Your task to perform on an android device: turn pop-ups off in chrome Image 0: 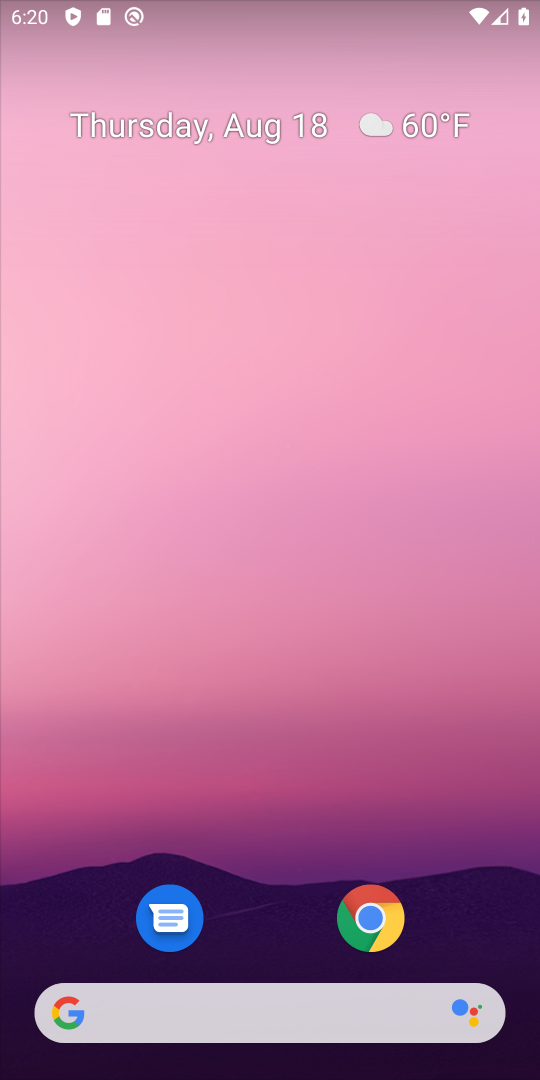
Step 0: press home button
Your task to perform on an android device: turn pop-ups off in chrome Image 1: 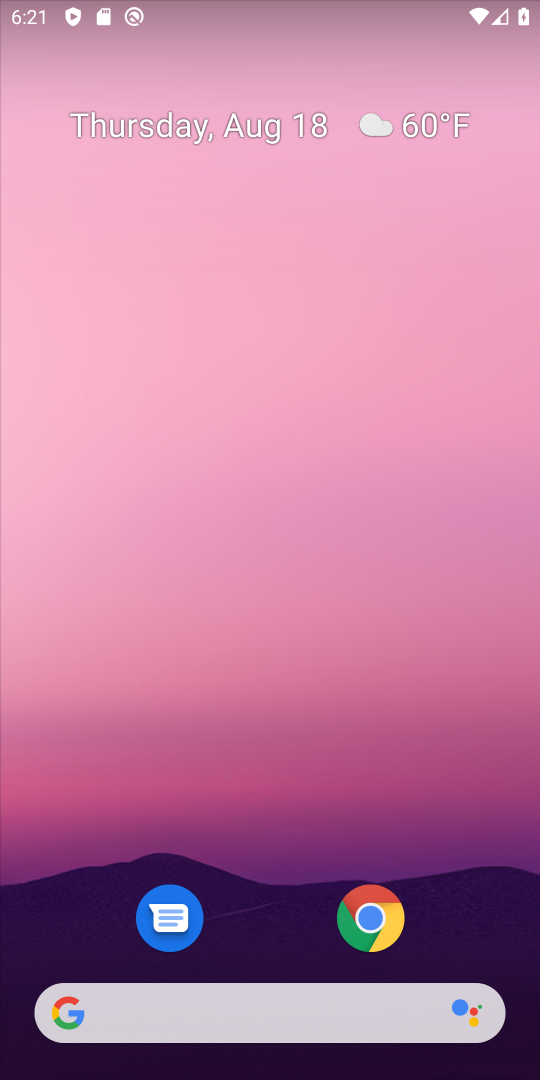
Step 1: click (374, 937)
Your task to perform on an android device: turn pop-ups off in chrome Image 2: 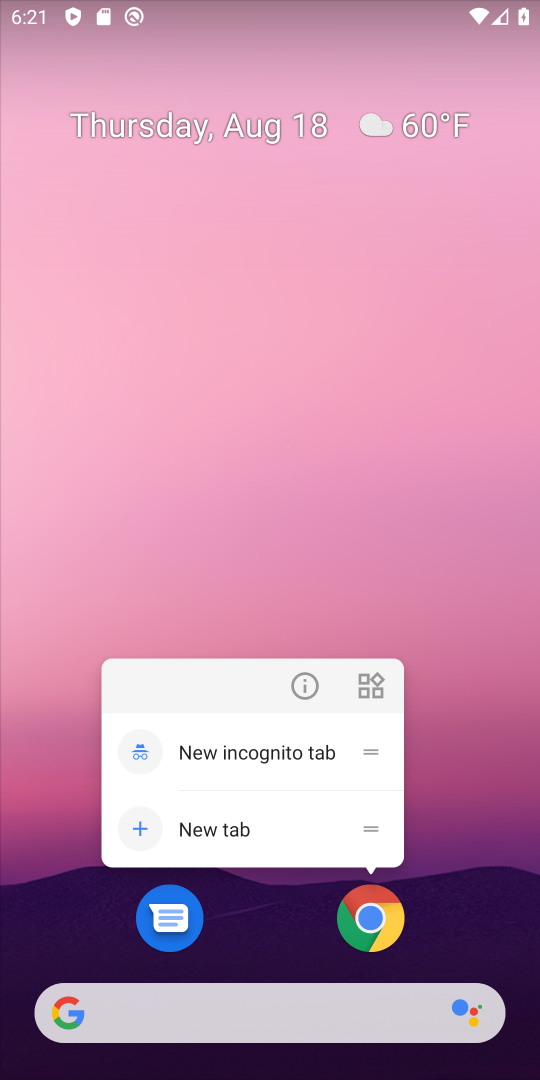
Step 2: click (384, 921)
Your task to perform on an android device: turn pop-ups off in chrome Image 3: 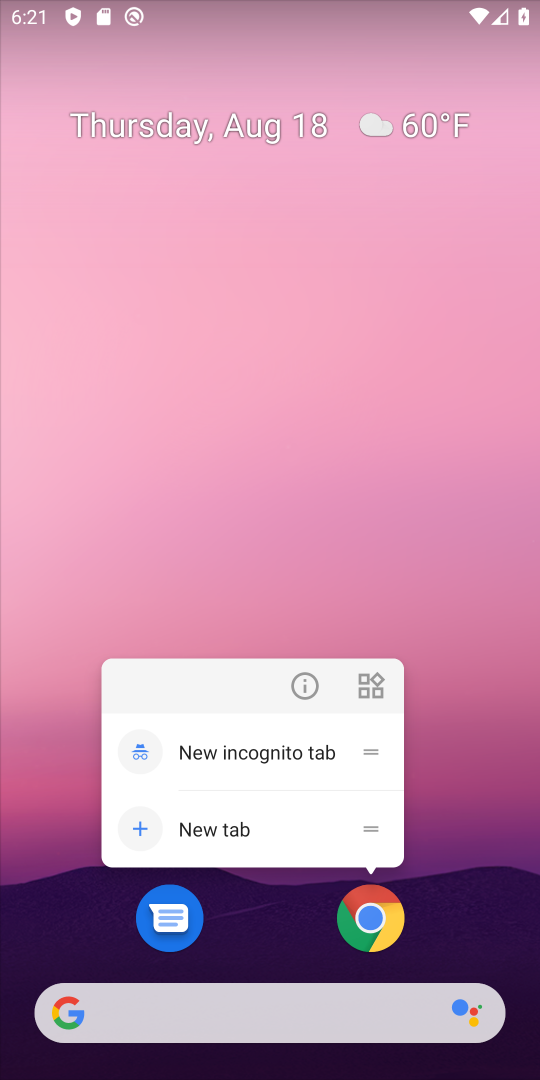
Step 3: click (384, 921)
Your task to perform on an android device: turn pop-ups off in chrome Image 4: 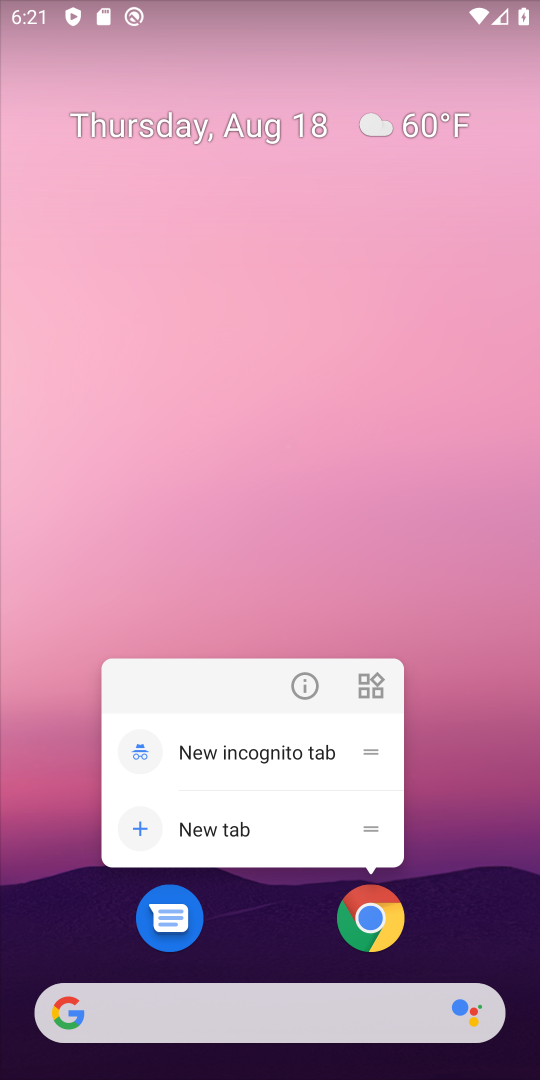
Step 4: click (381, 921)
Your task to perform on an android device: turn pop-ups off in chrome Image 5: 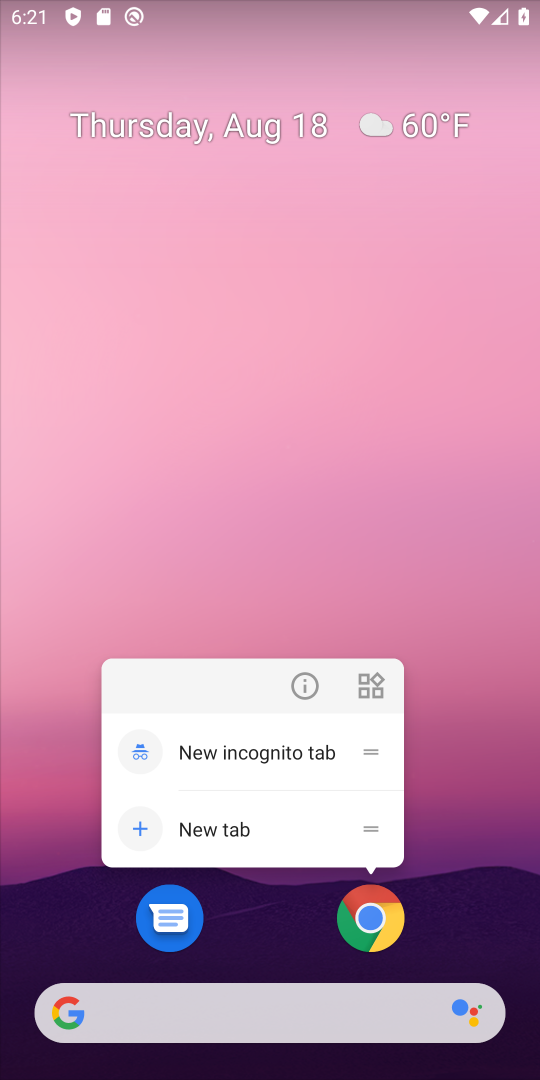
Step 5: click (373, 922)
Your task to perform on an android device: turn pop-ups off in chrome Image 6: 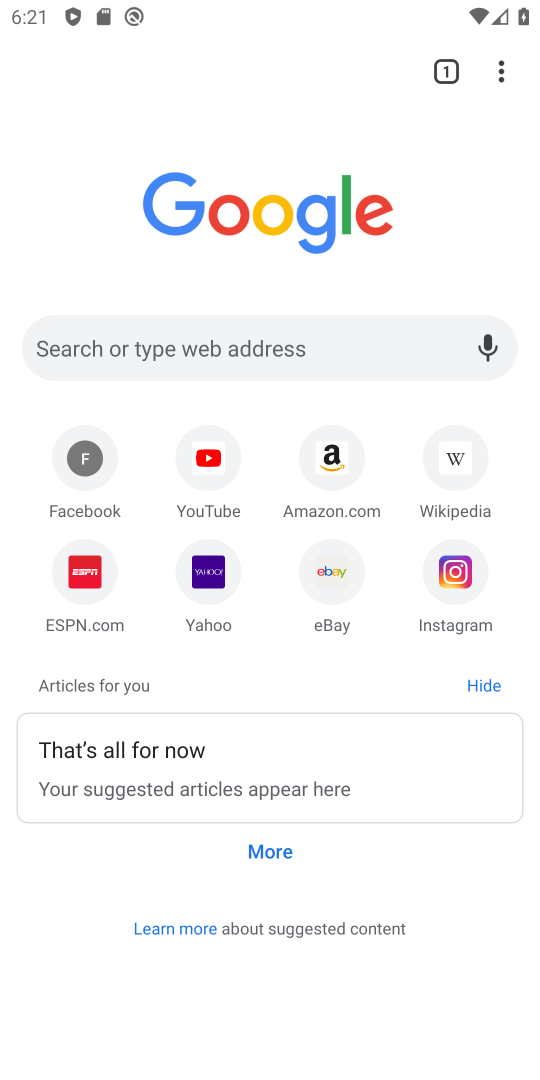
Step 6: drag from (505, 73) to (247, 596)
Your task to perform on an android device: turn pop-ups off in chrome Image 7: 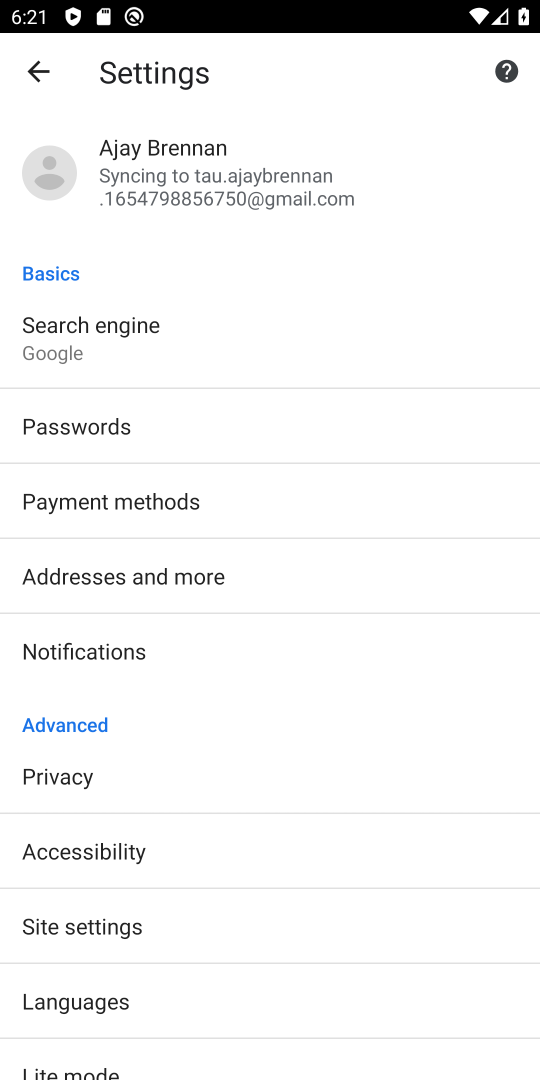
Step 7: click (80, 919)
Your task to perform on an android device: turn pop-ups off in chrome Image 8: 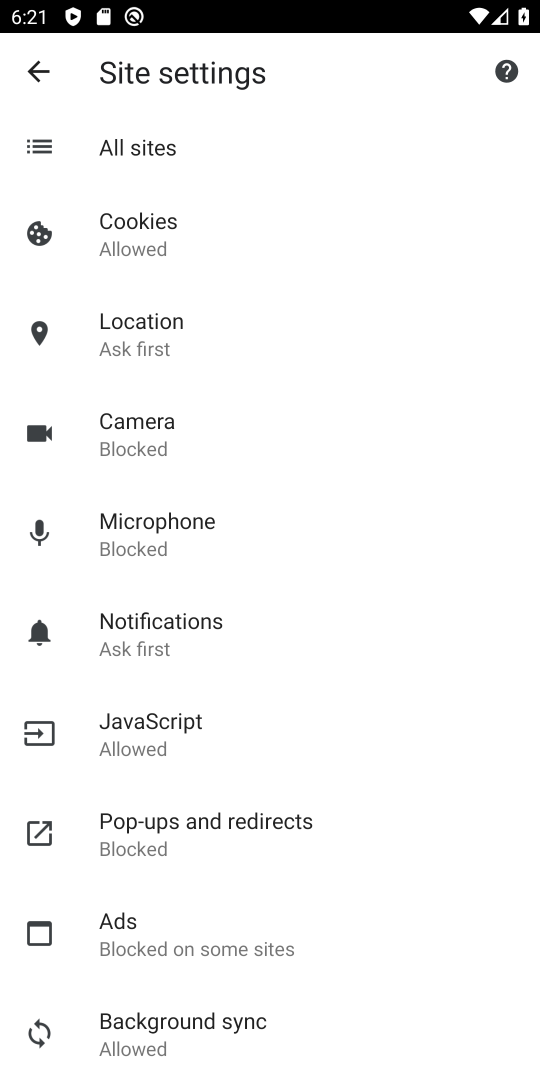
Step 8: click (125, 847)
Your task to perform on an android device: turn pop-ups off in chrome Image 9: 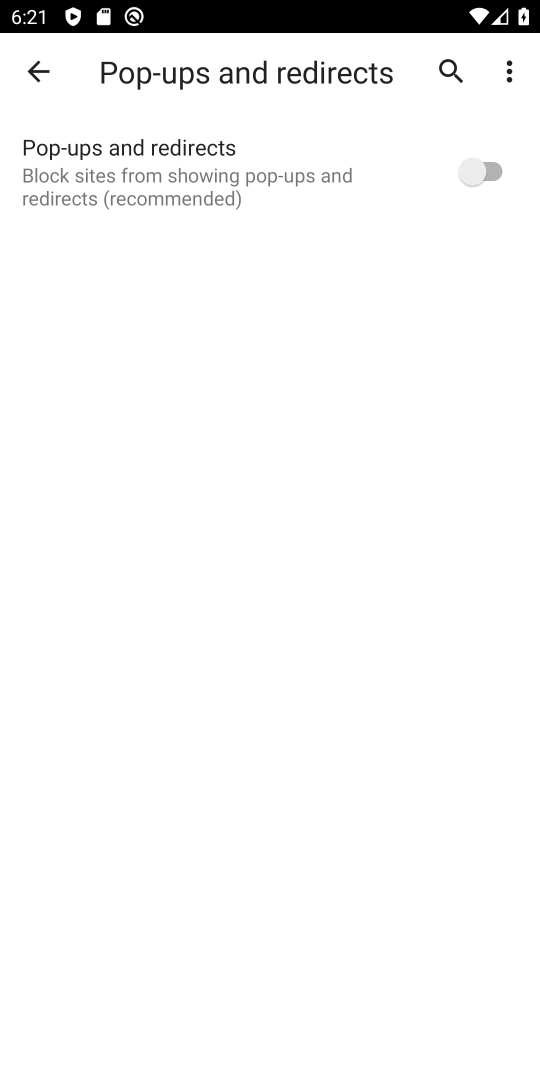
Step 9: task complete